Your task to perform on an android device: Open the Play Movies app and select the watchlist tab. Image 0: 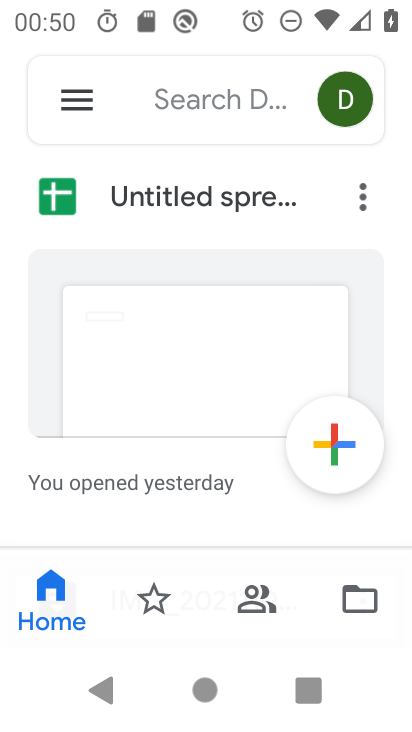
Step 0: press home button
Your task to perform on an android device: Open the Play Movies app and select the watchlist tab. Image 1: 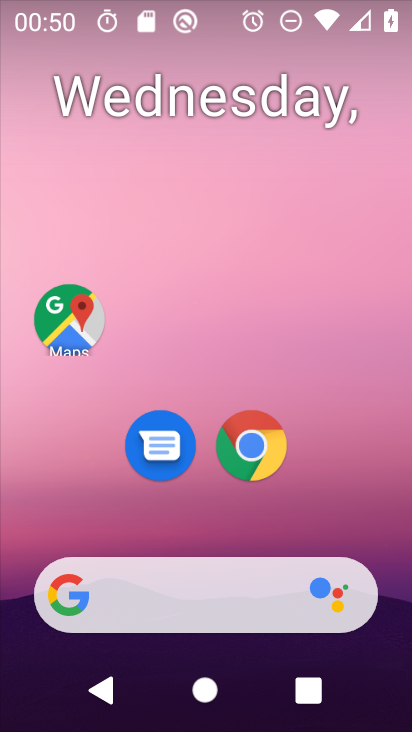
Step 1: drag from (313, 509) to (403, 27)
Your task to perform on an android device: Open the Play Movies app and select the watchlist tab. Image 2: 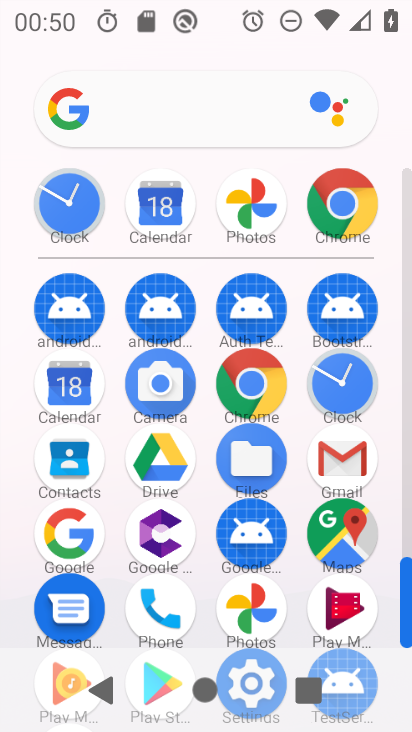
Step 2: click (343, 606)
Your task to perform on an android device: Open the Play Movies app and select the watchlist tab. Image 3: 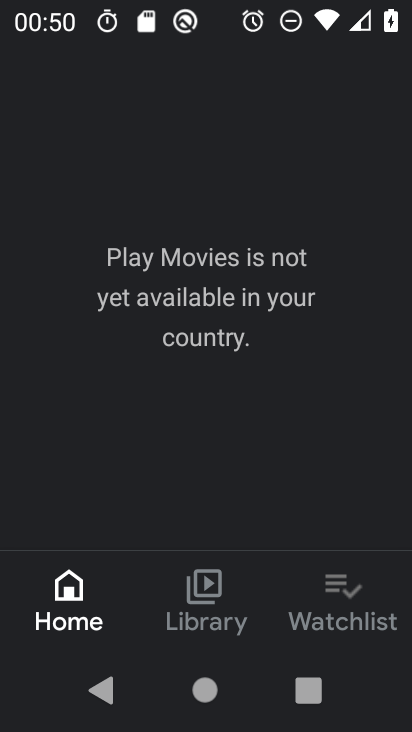
Step 3: click (350, 617)
Your task to perform on an android device: Open the Play Movies app and select the watchlist tab. Image 4: 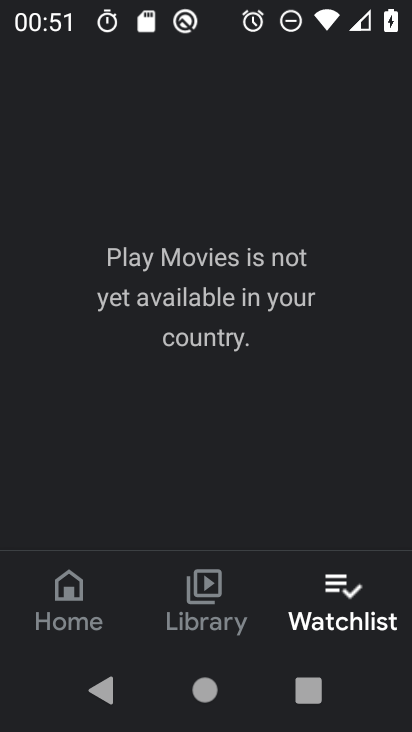
Step 4: task complete